Your task to perform on an android device: toggle improve location accuracy Image 0: 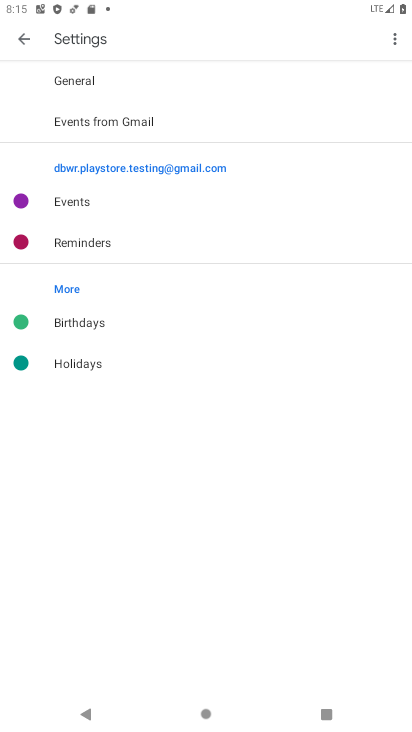
Step 0: press home button
Your task to perform on an android device: toggle improve location accuracy Image 1: 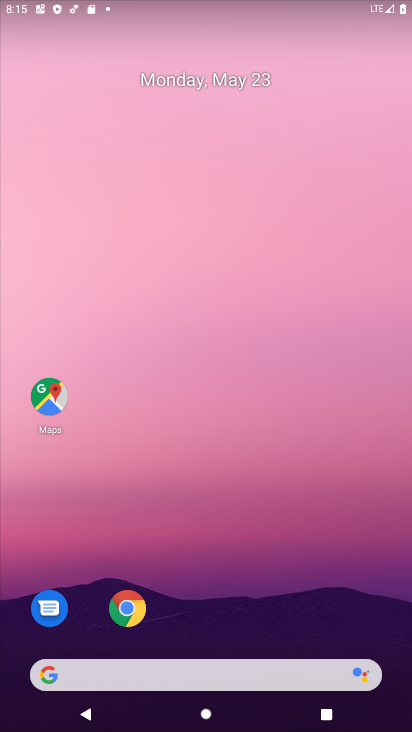
Step 1: drag from (227, 670) to (193, 171)
Your task to perform on an android device: toggle improve location accuracy Image 2: 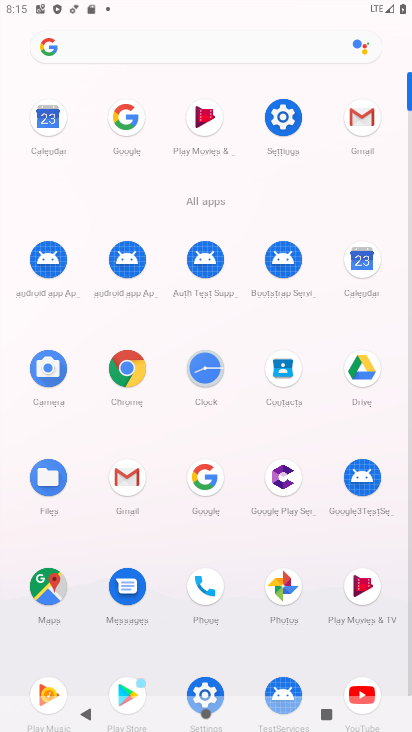
Step 2: click (282, 117)
Your task to perform on an android device: toggle improve location accuracy Image 3: 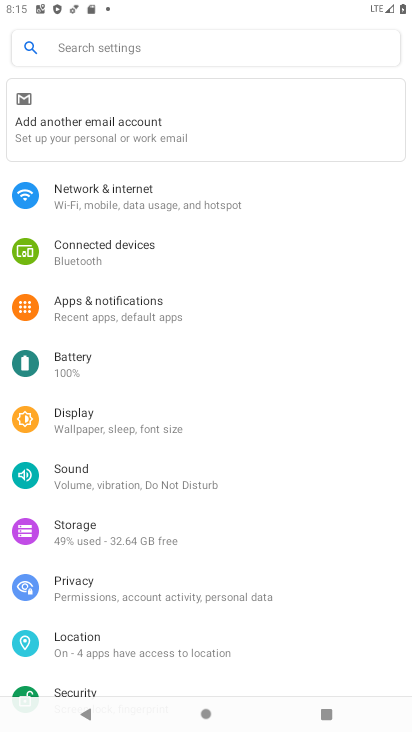
Step 3: click (90, 640)
Your task to perform on an android device: toggle improve location accuracy Image 4: 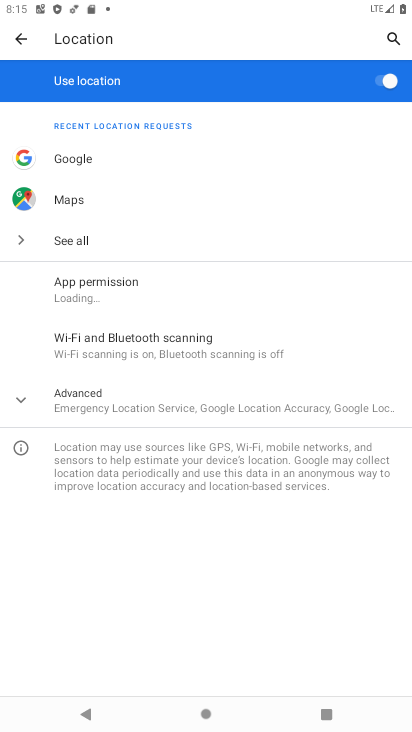
Step 4: click (133, 393)
Your task to perform on an android device: toggle improve location accuracy Image 5: 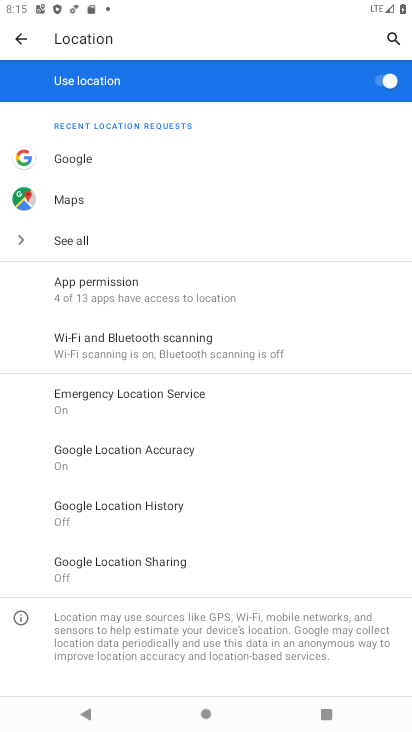
Step 5: click (139, 466)
Your task to perform on an android device: toggle improve location accuracy Image 6: 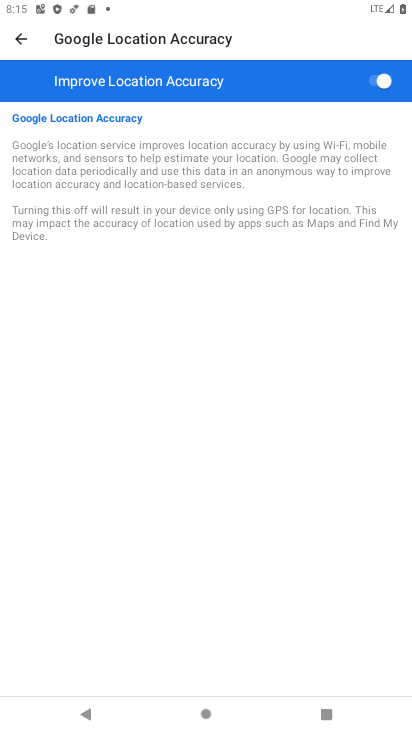
Step 6: click (376, 85)
Your task to perform on an android device: toggle improve location accuracy Image 7: 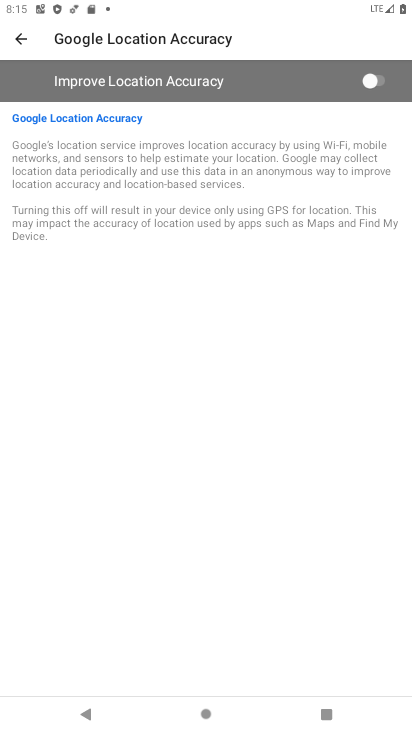
Step 7: task complete